Your task to perform on an android device: set the timer Image 0: 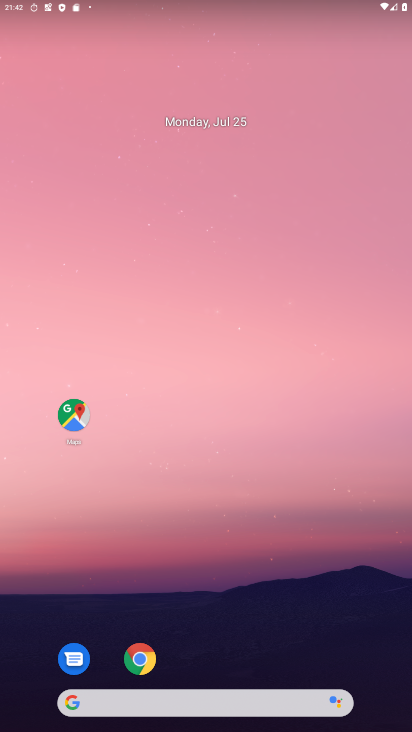
Step 0: drag from (200, 637) to (207, 320)
Your task to perform on an android device: set the timer Image 1: 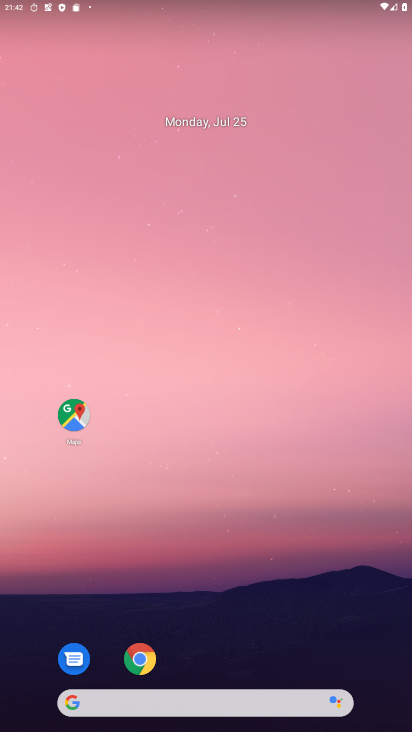
Step 1: drag from (214, 645) to (228, 138)
Your task to perform on an android device: set the timer Image 2: 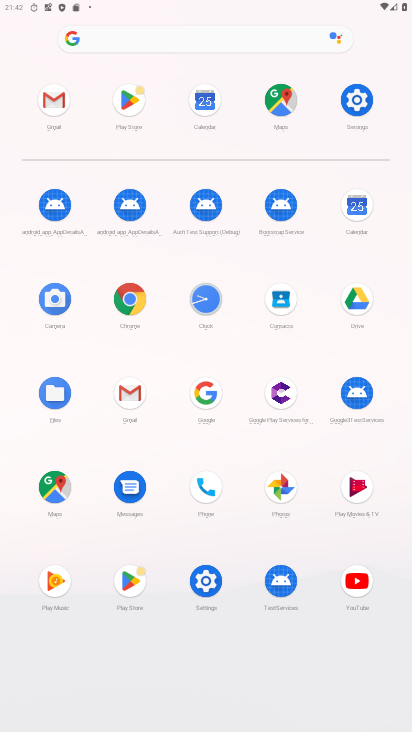
Step 2: click (221, 301)
Your task to perform on an android device: set the timer Image 3: 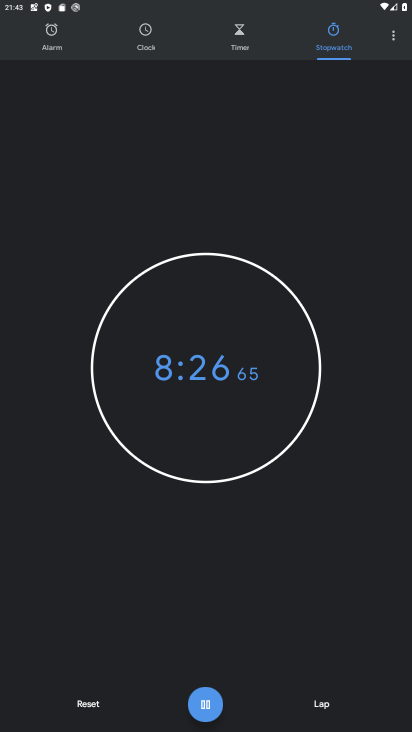
Step 3: click (249, 30)
Your task to perform on an android device: set the timer Image 4: 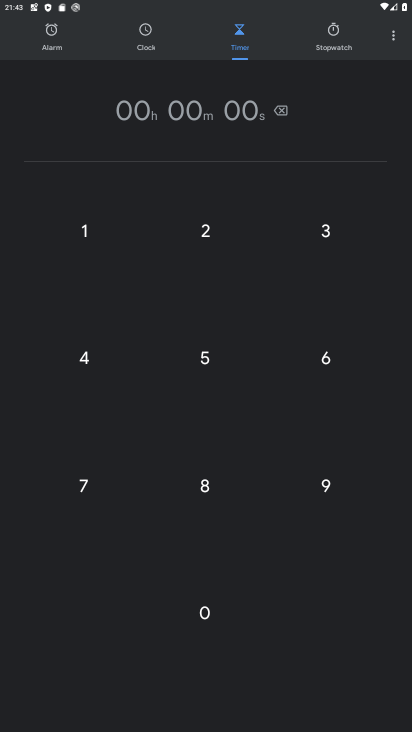
Step 4: click (264, 115)
Your task to perform on an android device: set the timer Image 5: 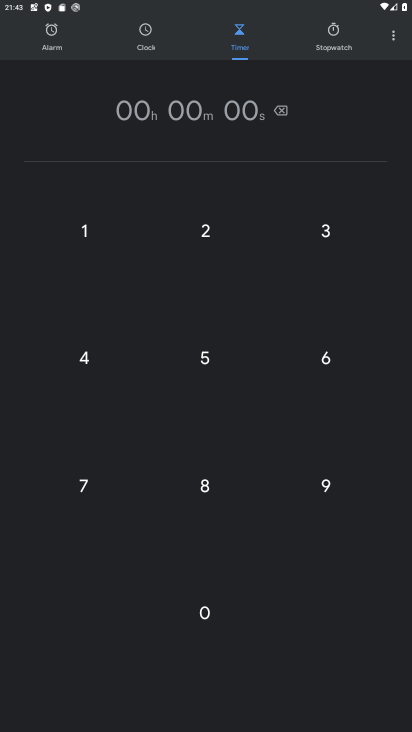
Step 5: type "11"
Your task to perform on an android device: set the timer Image 6: 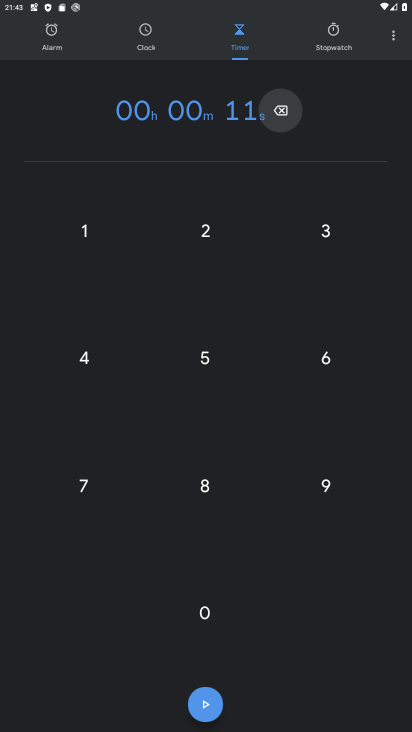
Step 6: task complete